Your task to perform on an android device: check out phone information Image 0: 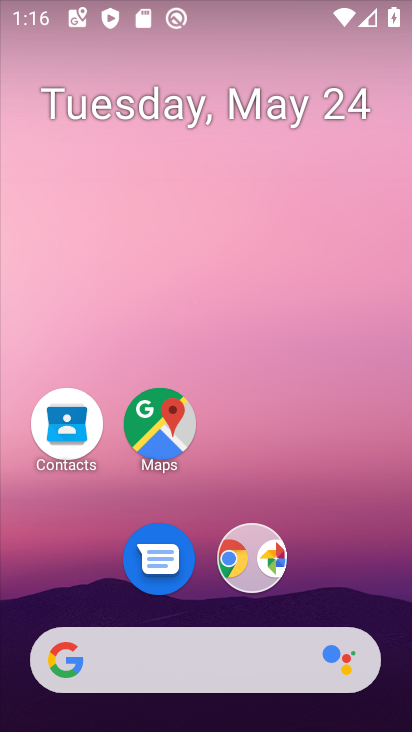
Step 0: click (283, 253)
Your task to perform on an android device: check out phone information Image 1: 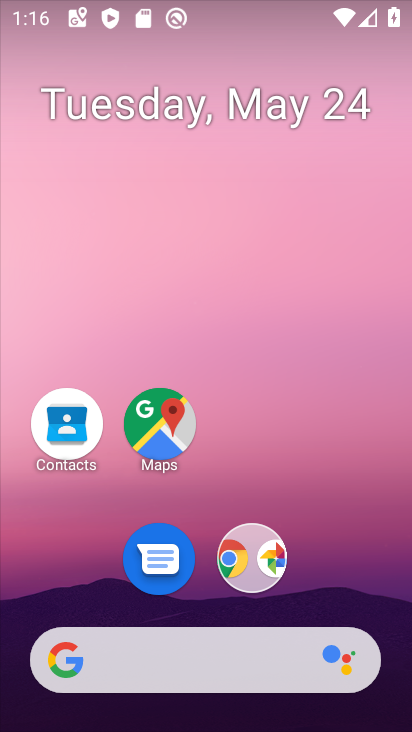
Step 1: drag from (337, 599) to (187, 4)
Your task to perform on an android device: check out phone information Image 2: 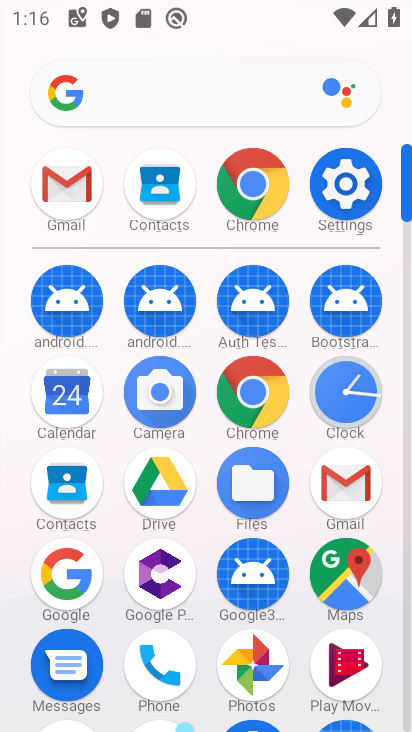
Step 2: click (343, 192)
Your task to perform on an android device: check out phone information Image 3: 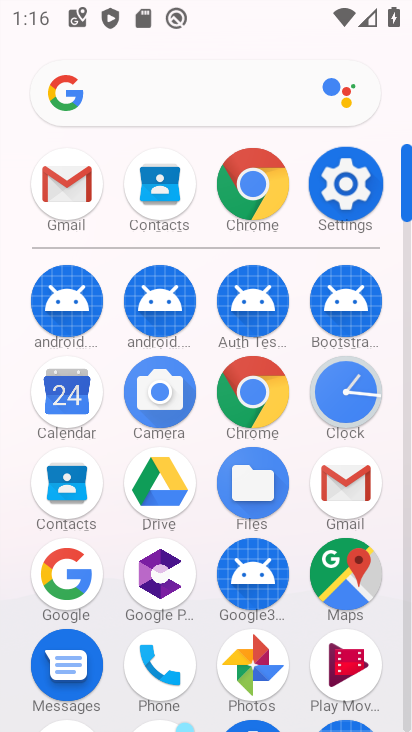
Step 3: click (344, 192)
Your task to perform on an android device: check out phone information Image 4: 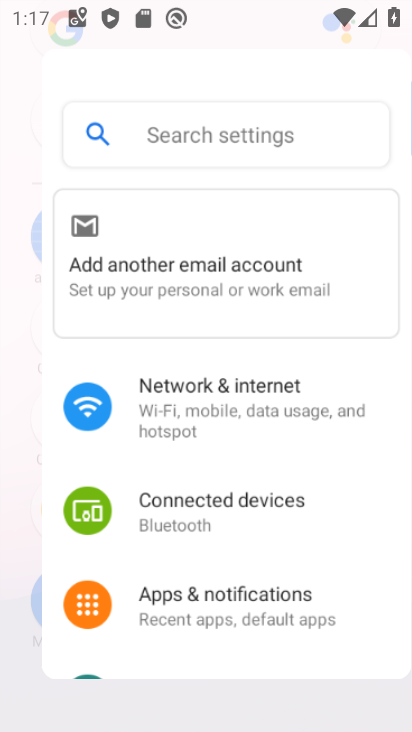
Step 4: click (344, 192)
Your task to perform on an android device: check out phone information Image 5: 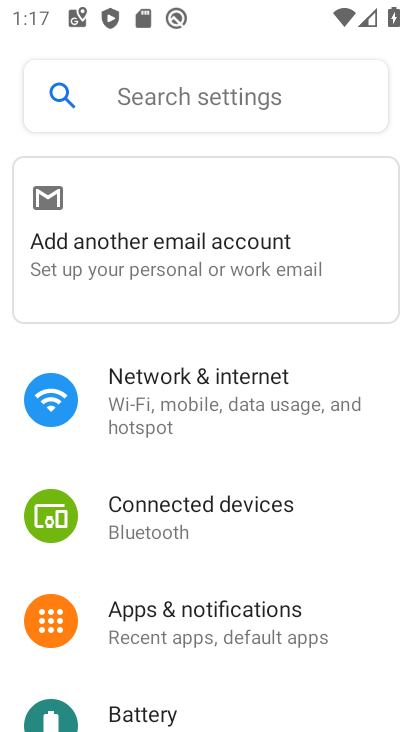
Step 5: drag from (241, 616) to (187, 193)
Your task to perform on an android device: check out phone information Image 6: 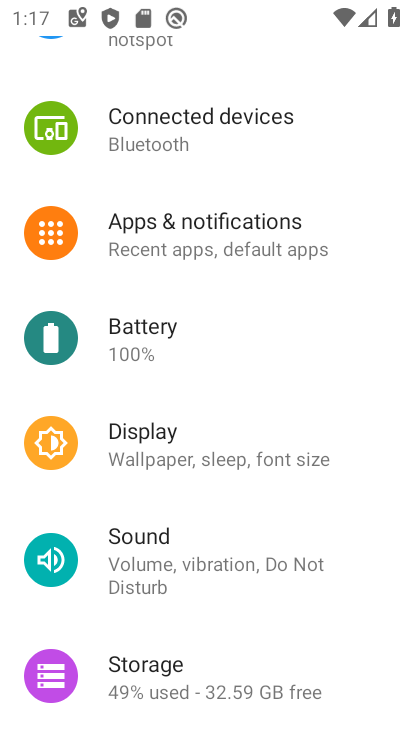
Step 6: drag from (243, 473) to (247, 160)
Your task to perform on an android device: check out phone information Image 7: 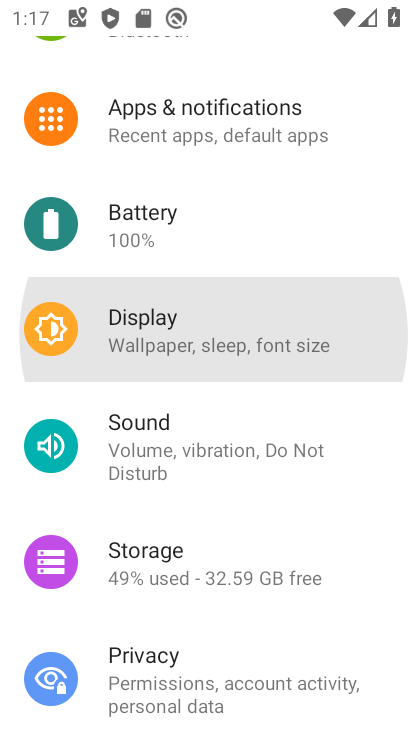
Step 7: drag from (255, 439) to (275, 101)
Your task to perform on an android device: check out phone information Image 8: 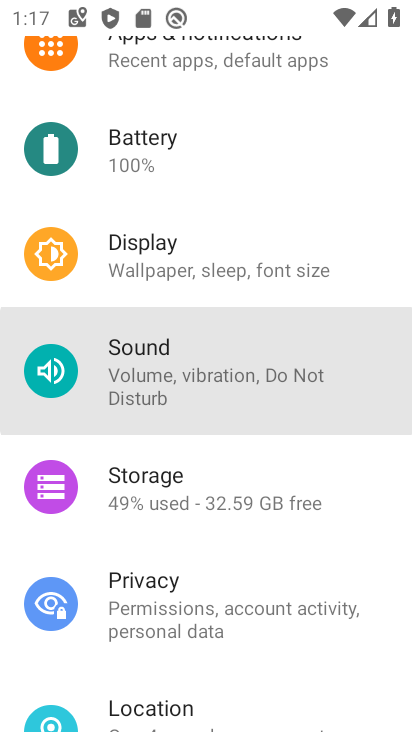
Step 8: drag from (201, 445) to (143, 115)
Your task to perform on an android device: check out phone information Image 9: 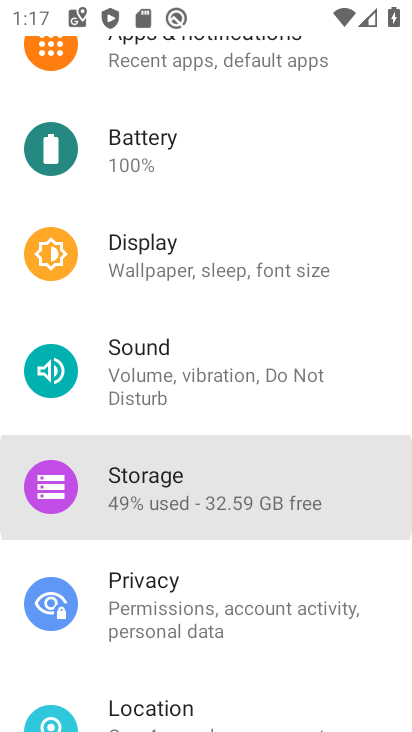
Step 9: drag from (219, 543) to (179, 87)
Your task to perform on an android device: check out phone information Image 10: 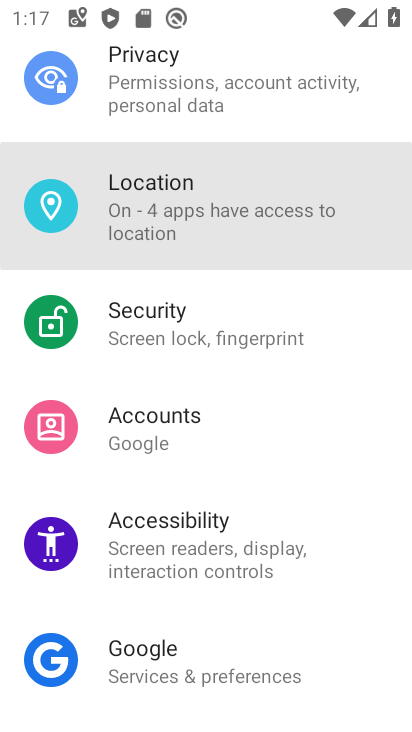
Step 10: drag from (191, 466) to (212, 67)
Your task to perform on an android device: check out phone information Image 11: 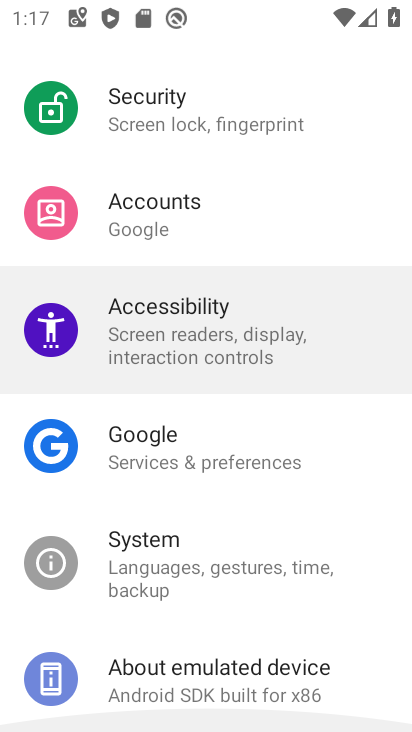
Step 11: drag from (249, 531) to (192, 116)
Your task to perform on an android device: check out phone information Image 12: 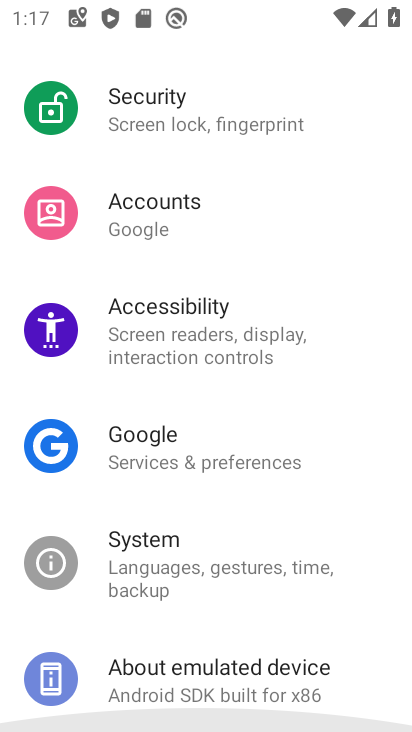
Step 12: drag from (231, 484) to (176, 15)
Your task to perform on an android device: check out phone information Image 13: 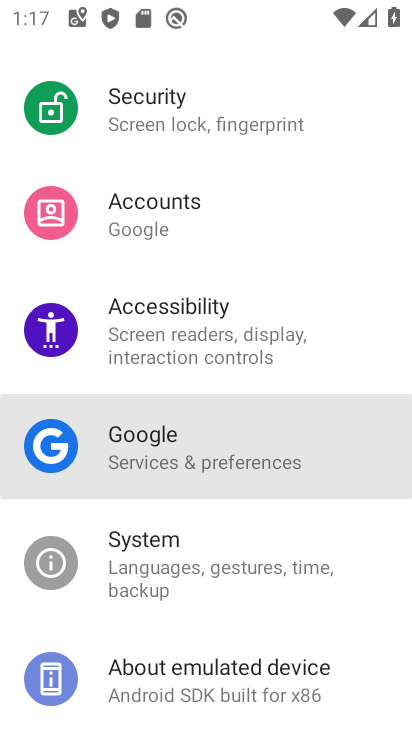
Step 13: drag from (222, 497) to (222, 165)
Your task to perform on an android device: check out phone information Image 14: 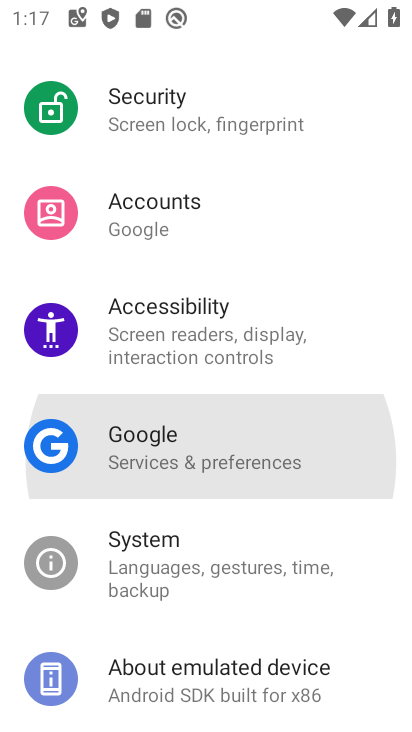
Step 14: drag from (269, 570) to (268, 170)
Your task to perform on an android device: check out phone information Image 15: 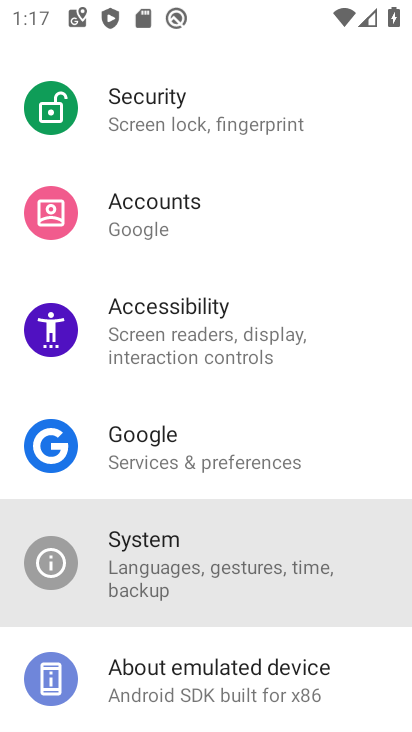
Step 15: drag from (254, 590) to (217, 177)
Your task to perform on an android device: check out phone information Image 16: 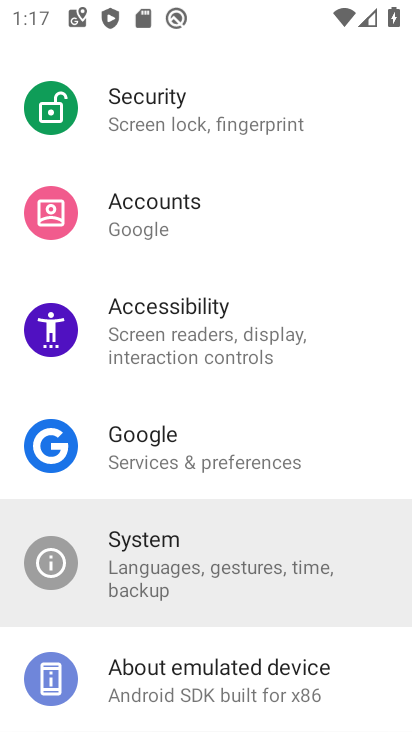
Step 16: drag from (211, 465) to (189, 101)
Your task to perform on an android device: check out phone information Image 17: 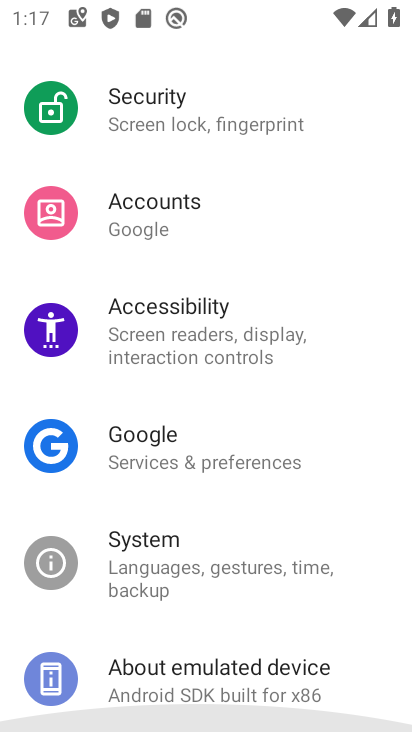
Step 17: drag from (192, 304) to (192, 223)
Your task to perform on an android device: check out phone information Image 18: 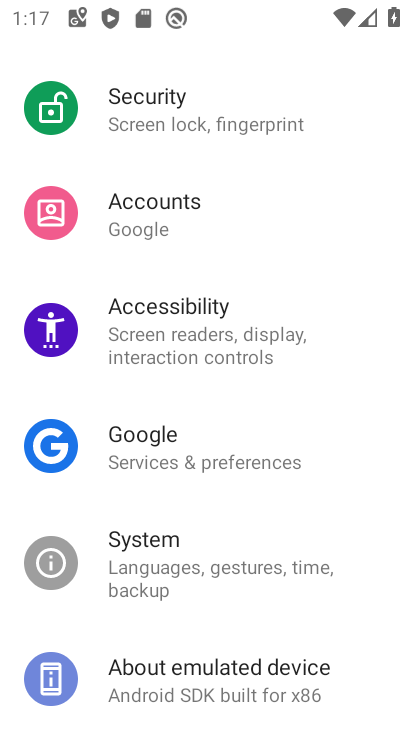
Step 18: click (199, 678)
Your task to perform on an android device: check out phone information Image 19: 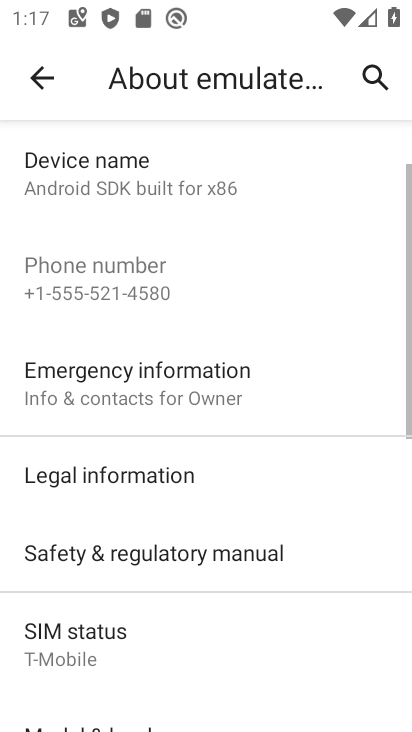
Step 19: click (36, 76)
Your task to perform on an android device: check out phone information Image 20: 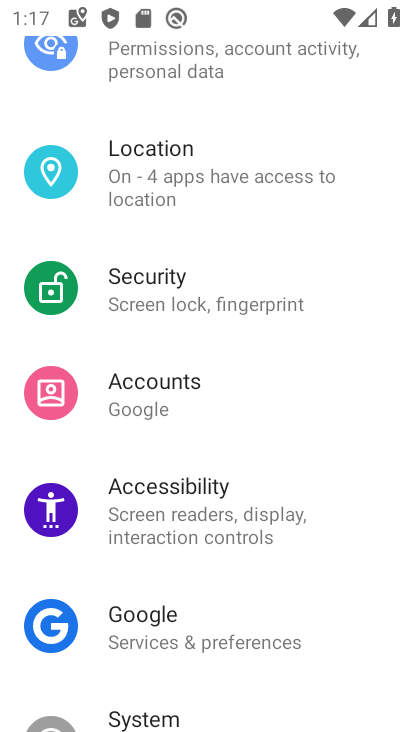
Step 20: click (46, 90)
Your task to perform on an android device: check out phone information Image 21: 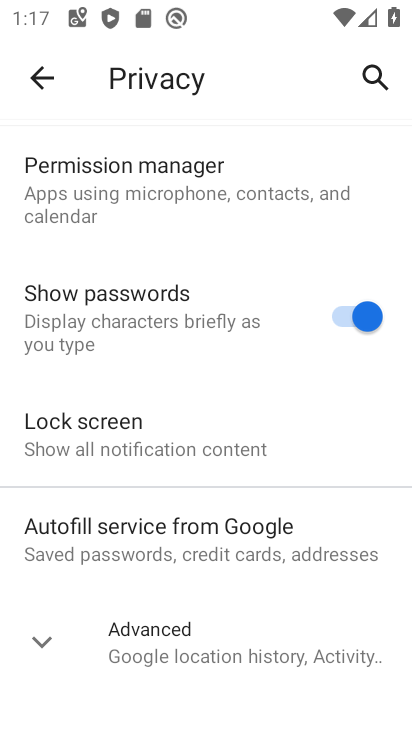
Step 21: click (40, 82)
Your task to perform on an android device: check out phone information Image 22: 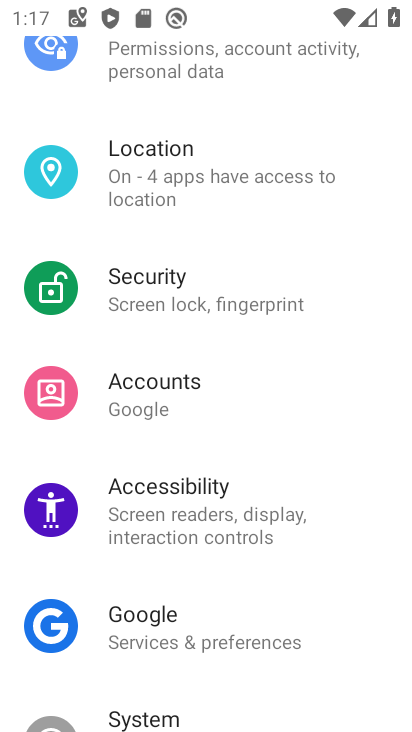
Step 22: drag from (210, 611) to (152, 287)
Your task to perform on an android device: check out phone information Image 23: 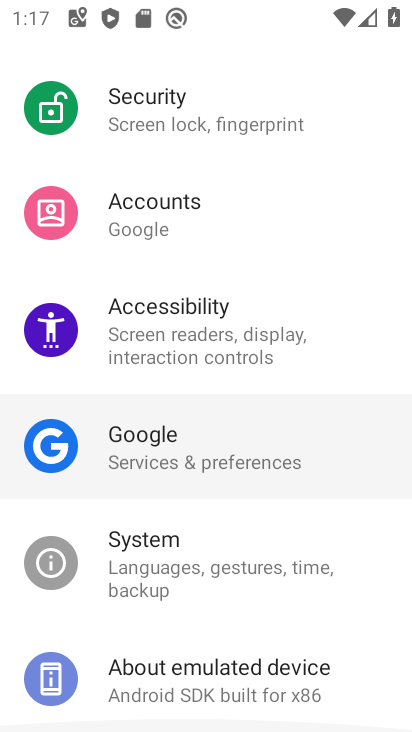
Step 23: drag from (141, 458) to (199, 119)
Your task to perform on an android device: check out phone information Image 24: 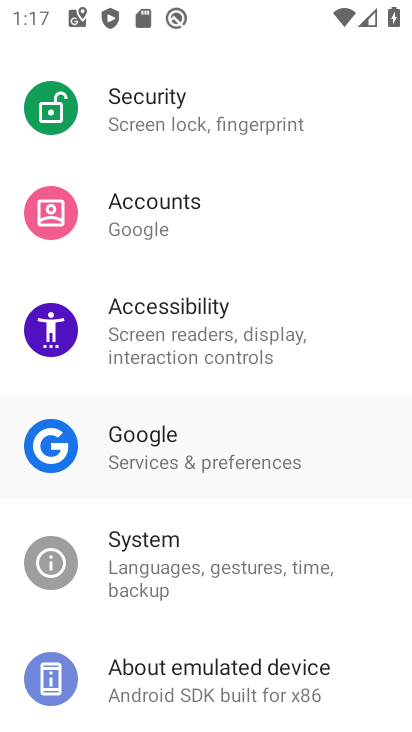
Step 24: drag from (342, 536) to (318, 79)
Your task to perform on an android device: check out phone information Image 25: 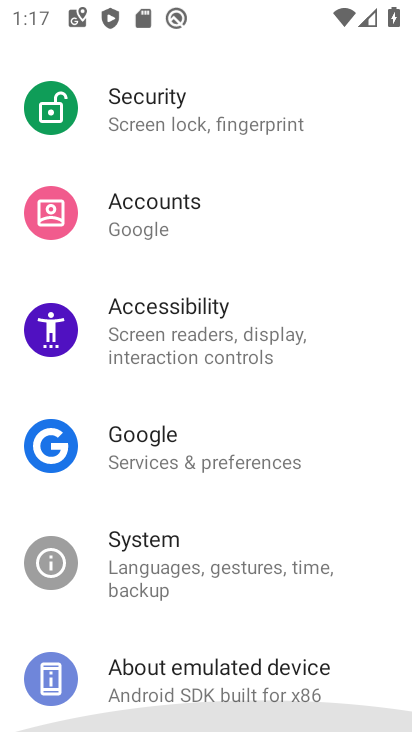
Step 25: drag from (250, 608) to (247, 78)
Your task to perform on an android device: check out phone information Image 26: 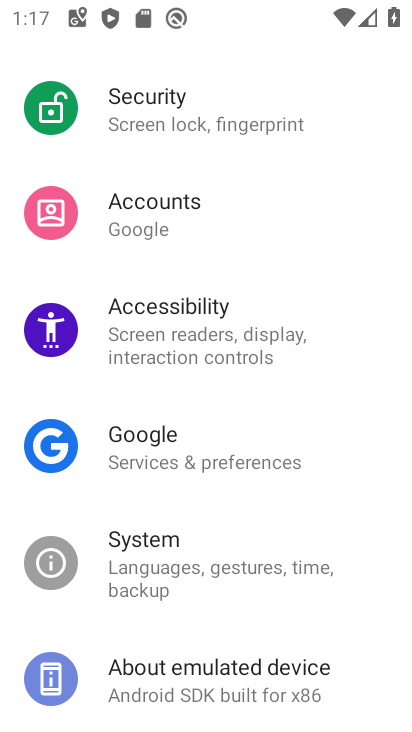
Step 26: click (219, 679)
Your task to perform on an android device: check out phone information Image 27: 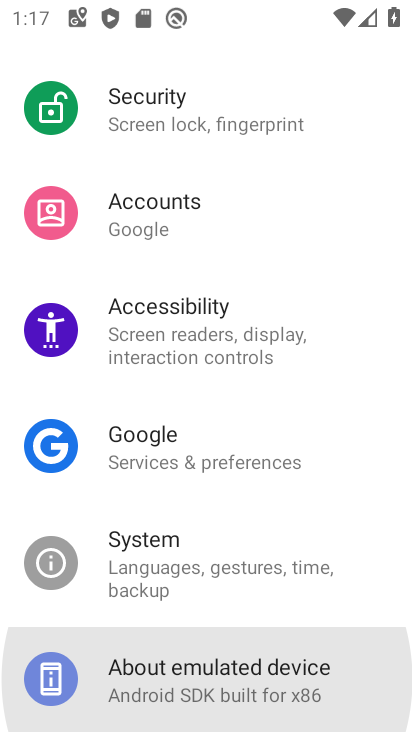
Step 27: click (218, 678)
Your task to perform on an android device: check out phone information Image 28: 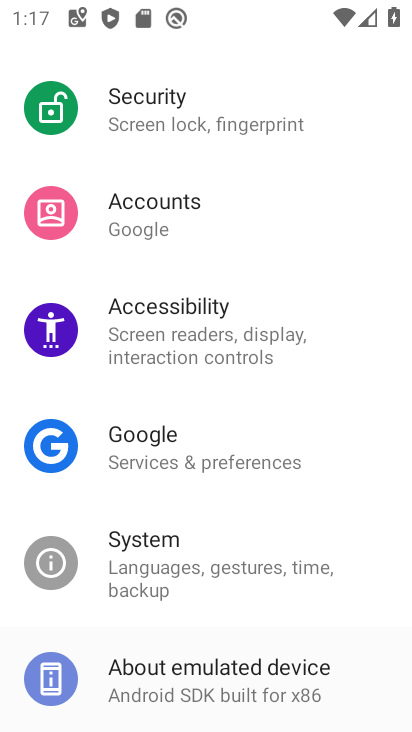
Step 28: click (220, 684)
Your task to perform on an android device: check out phone information Image 29: 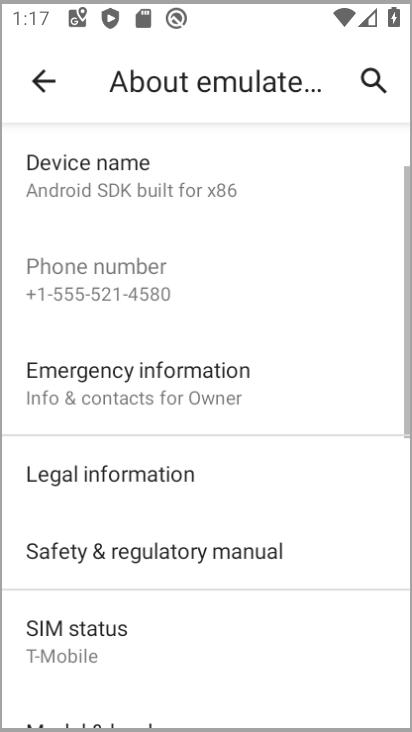
Step 29: click (221, 686)
Your task to perform on an android device: check out phone information Image 30: 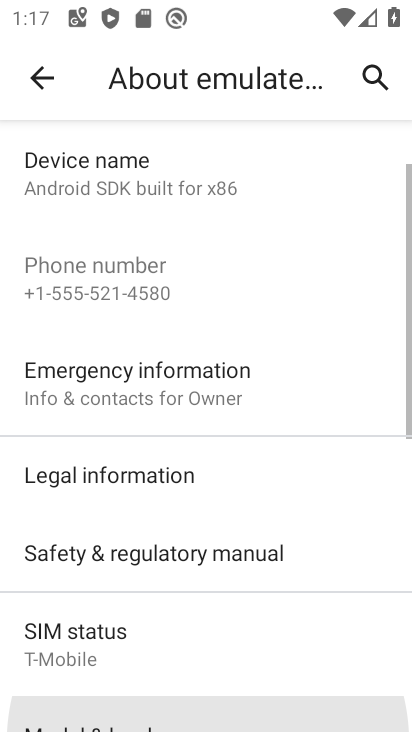
Step 30: click (222, 686)
Your task to perform on an android device: check out phone information Image 31: 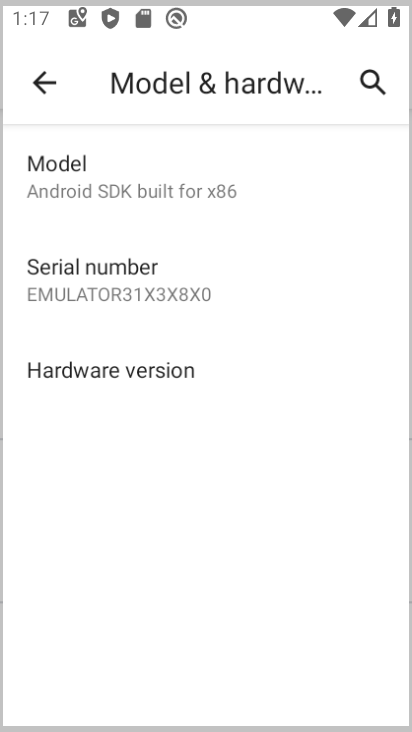
Step 31: click (224, 684)
Your task to perform on an android device: check out phone information Image 32: 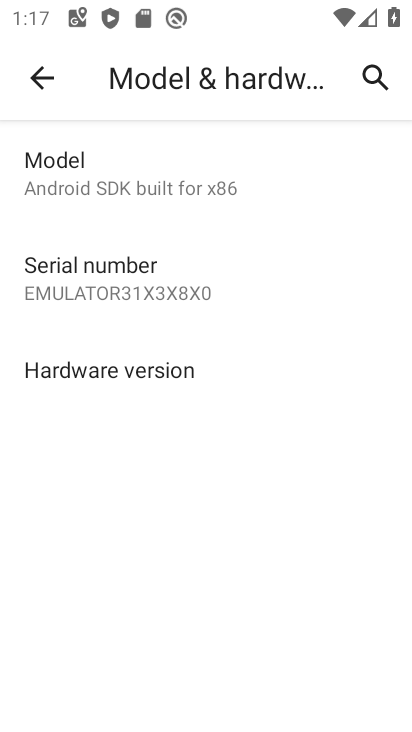
Step 32: click (230, 686)
Your task to perform on an android device: check out phone information Image 33: 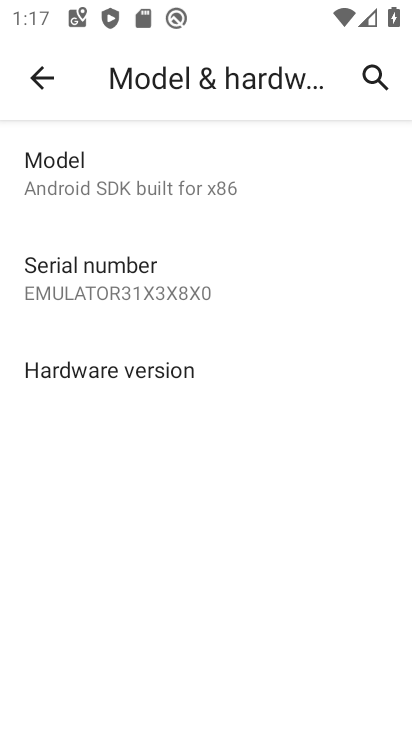
Step 33: click (230, 689)
Your task to perform on an android device: check out phone information Image 34: 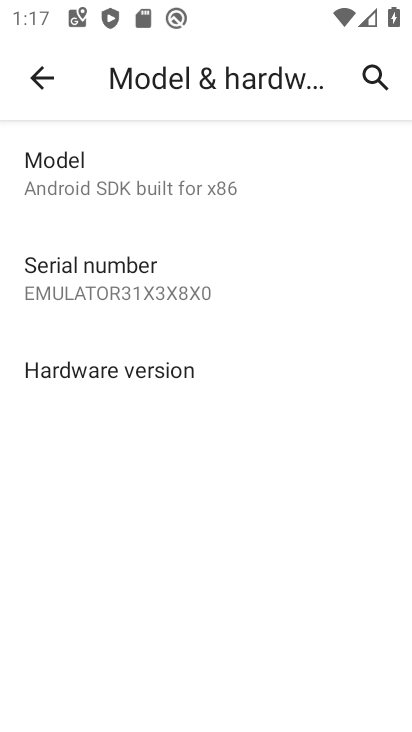
Step 34: task complete